Your task to perform on an android device: Set the phone to "Do not disturb". Image 0: 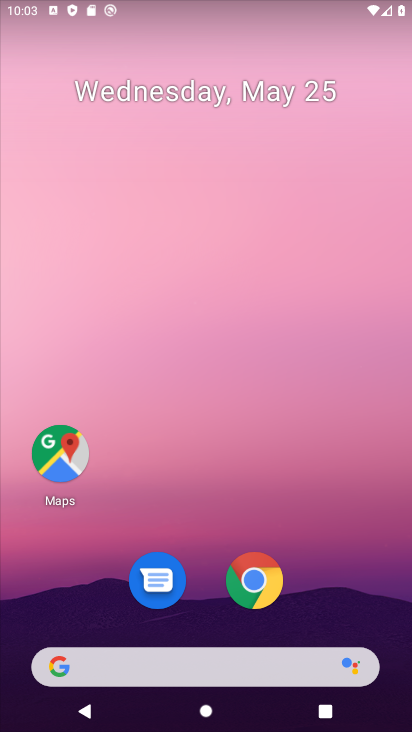
Step 0: drag from (222, 12) to (251, 343)
Your task to perform on an android device: Set the phone to "Do not disturb". Image 1: 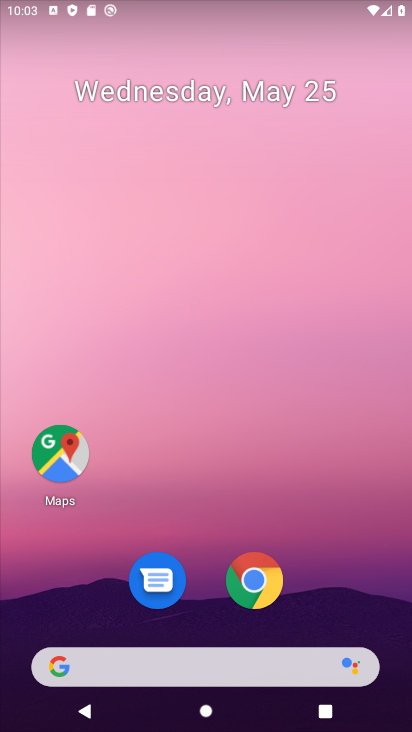
Step 1: drag from (175, 4) to (197, 446)
Your task to perform on an android device: Set the phone to "Do not disturb". Image 2: 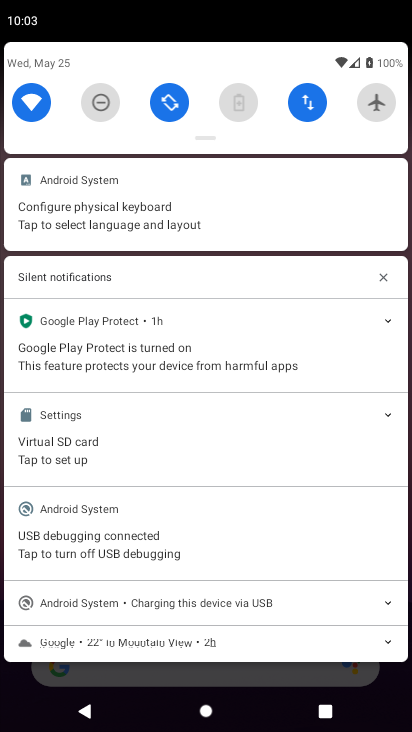
Step 2: click (104, 108)
Your task to perform on an android device: Set the phone to "Do not disturb". Image 3: 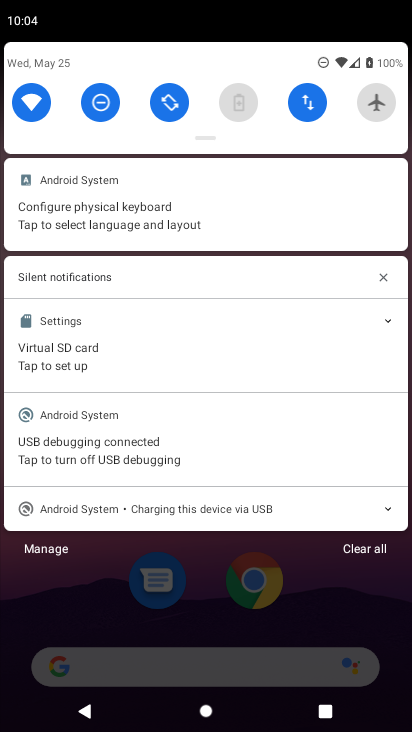
Step 3: task complete